Your task to perform on an android device: Search for Italian restaurants on Maps Image 0: 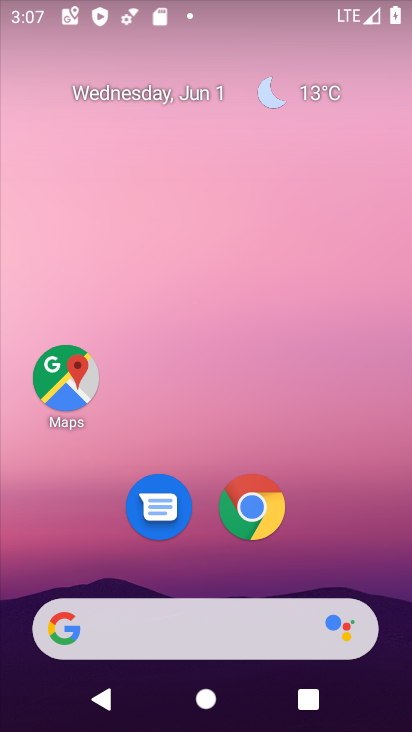
Step 0: click (66, 370)
Your task to perform on an android device: Search for Italian restaurants on Maps Image 1: 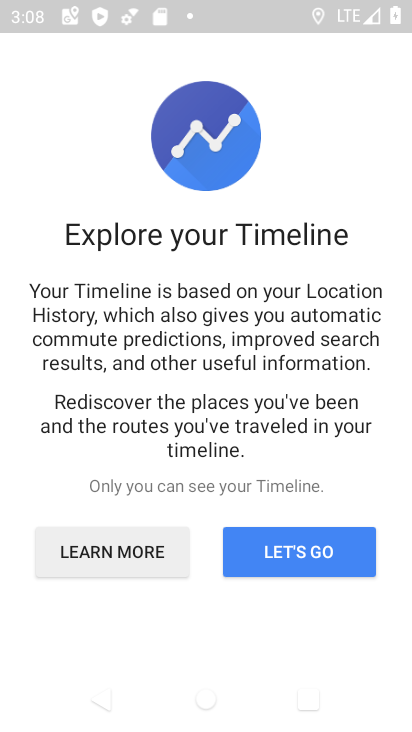
Step 1: press back button
Your task to perform on an android device: Search for Italian restaurants on Maps Image 2: 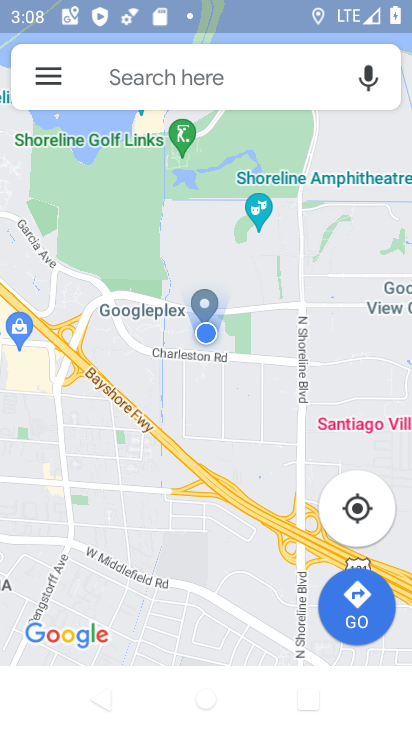
Step 2: click (218, 95)
Your task to perform on an android device: Search for Italian restaurants on Maps Image 3: 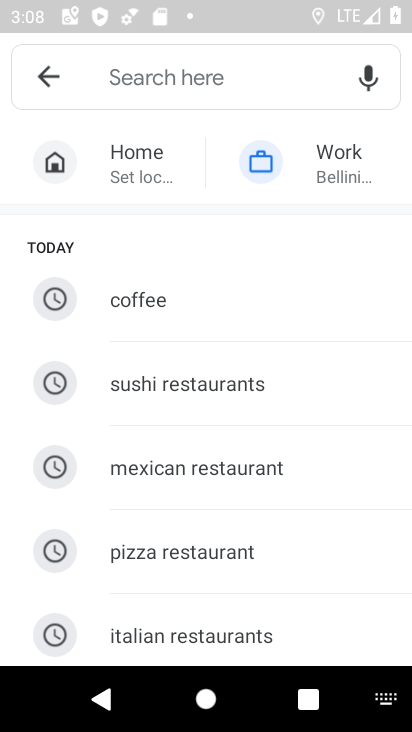
Step 3: click (148, 629)
Your task to perform on an android device: Search for Italian restaurants on Maps Image 4: 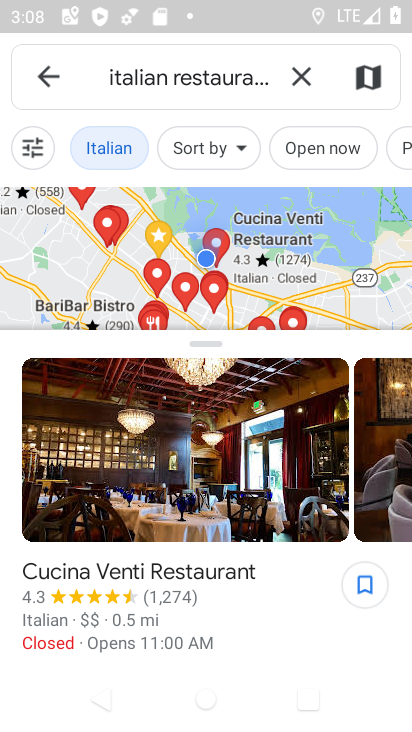
Step 4: task complete